Your task to perform on an android device: turn off sleep mode Image 0: 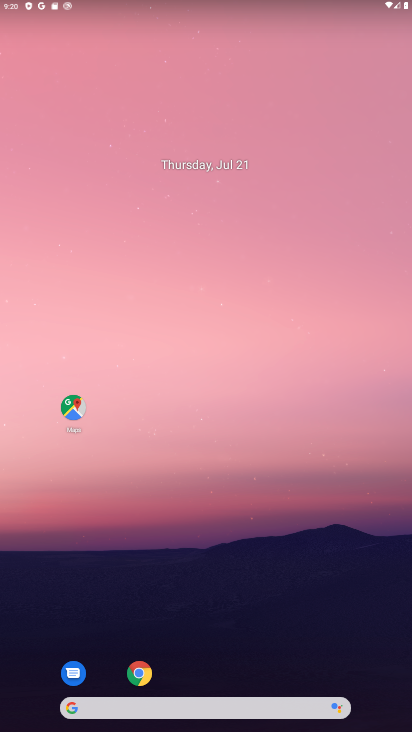
Step 0: press home button
Your task to perform on an android device: turn off sleep mode Image 1: 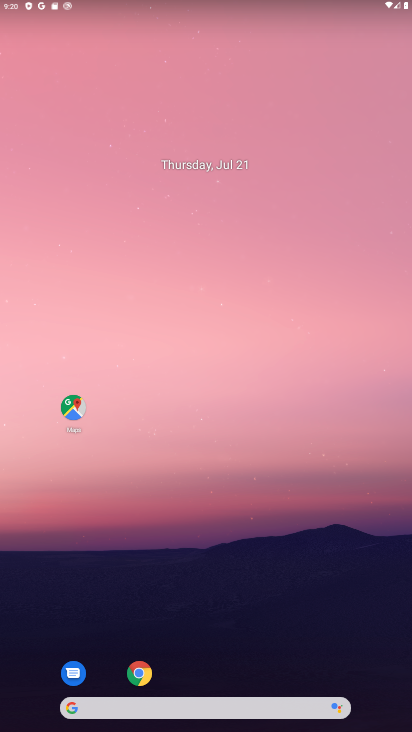
Step 1: drag from (210, 680) to (222, 34)
Your task to perform on an android device: turn off sleep mode Image 2: 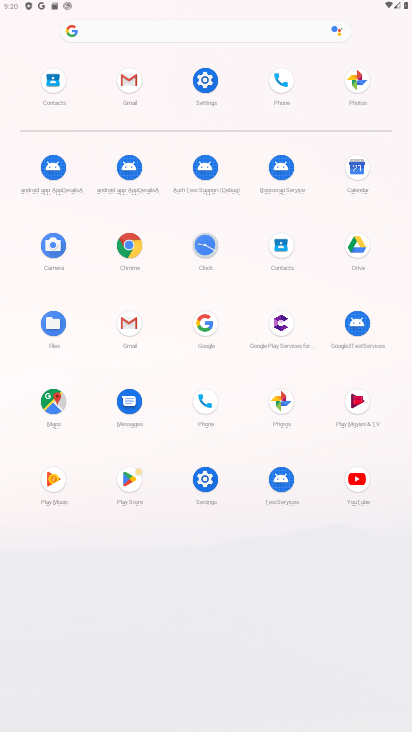
Step 2: click (208, 75)
Your task to perform on an android device: turn off sleep mode Image 3: 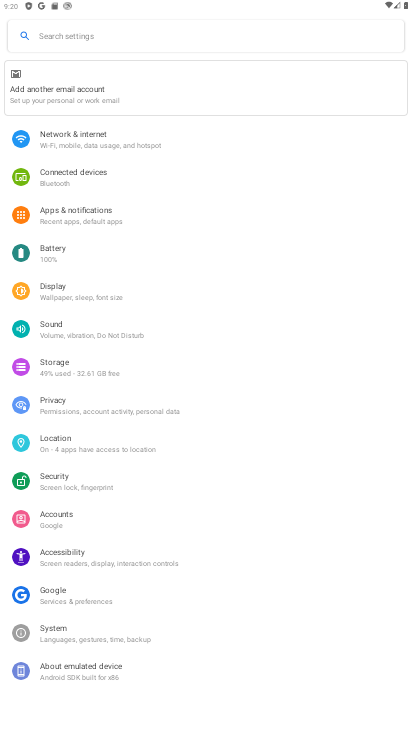
Step 3: click (77, 286)
Your task to perform on an android device: turn off sleep mode Image 4: 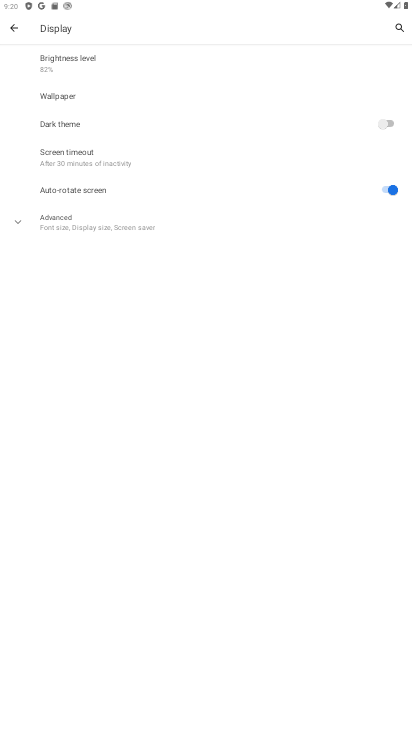
Step 4: click (19, 218)
Your task to perform on an android device: turn off sleep mode Image 5: 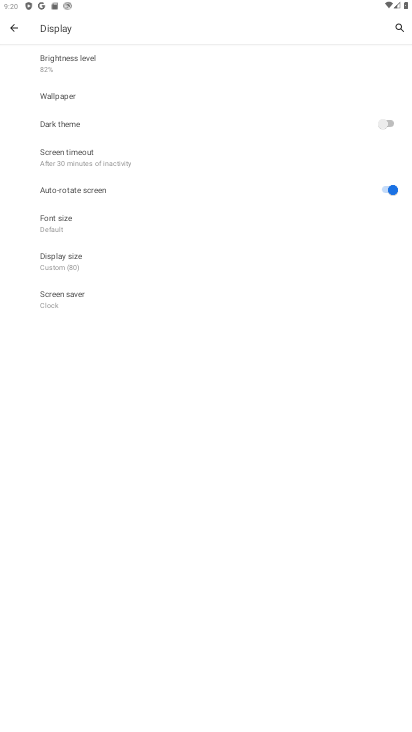
Step 5: task complete